Your task to perform on an android device: see creations saved in the google photos Image 0: 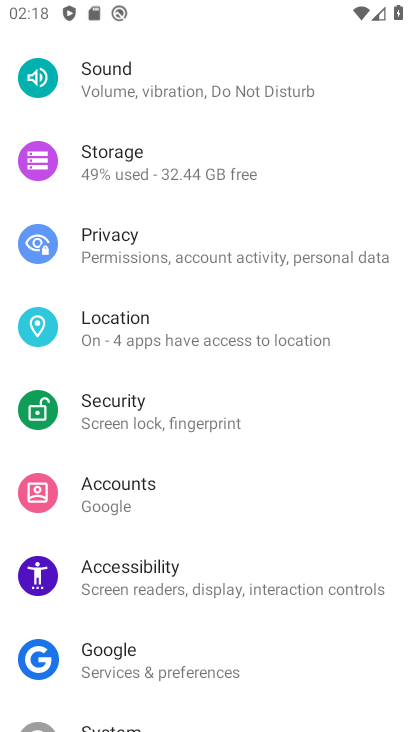
Step 0: press home button
Your task to perform on an android device: see creations saved in the google photos Image 1: 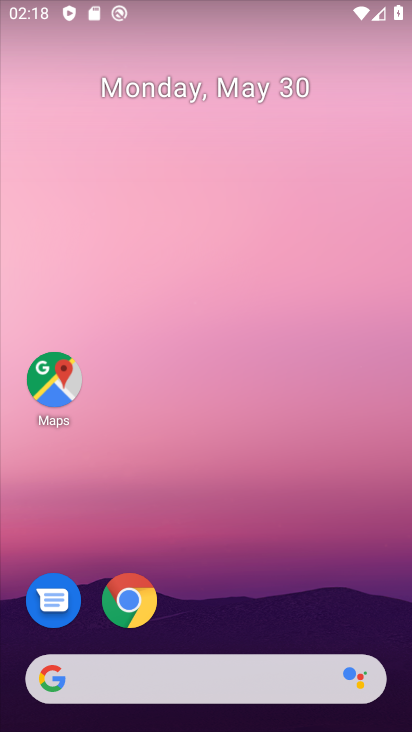
Step 1: drag from (244, 631) to (323, 101)
Your task to perform on an android device: see creations saved in the google photos Image 2: 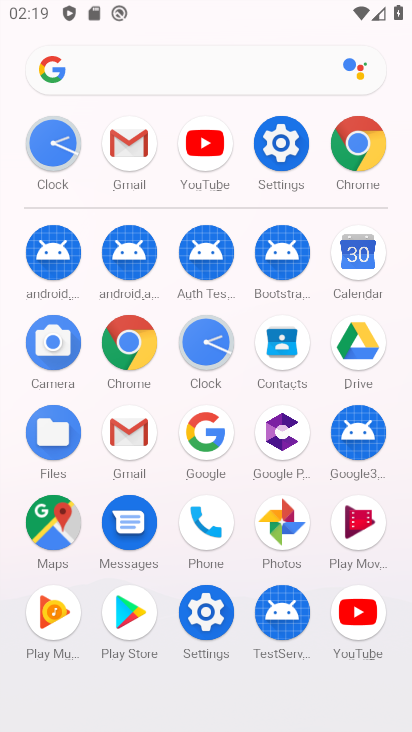
Step 2: click (285, 515)
Your task to perform on an android device: see creations saved in the google photos Image 3: 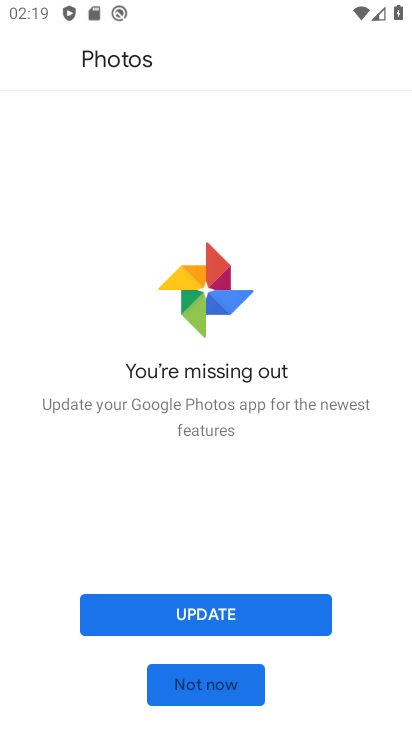
Step 3: click (250, 607)
Your task to perform on an android device: see creations saved in the google photos Image 4: 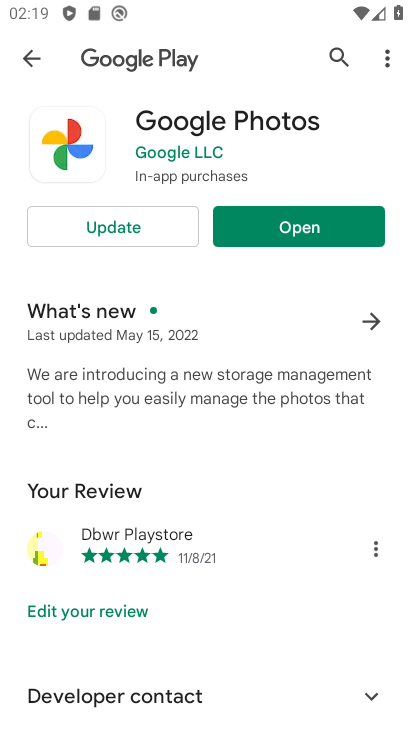
Step 4: click (130, 231)
Your task to perform on an android device: see creations saved in the google photos Image 5: 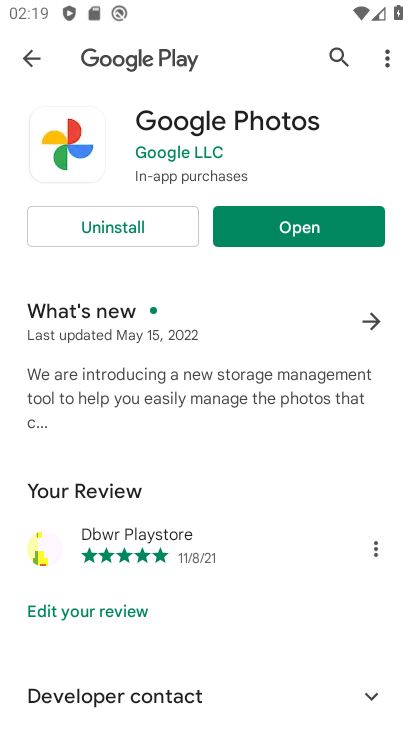
Step 5: click (291, 224)
Your task to perform on an android device: see creations saved in the google photos Image 6: 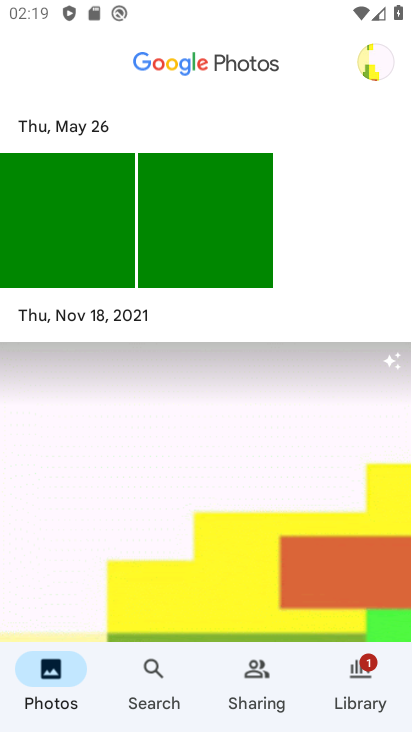
Step 6: click (151, 678)
Your task to perform on an android device: see creations saved in the google photos Image 7: 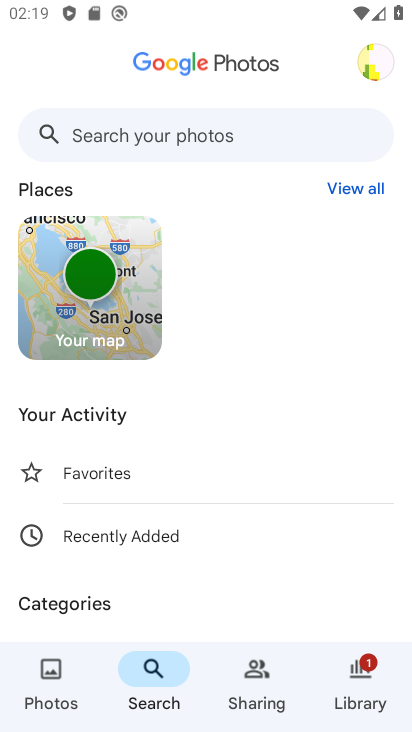
Step 7: drag from (259, 537) to (309, 172)
Your task to perform on an android device: see creations saved in the google photos Image 8: 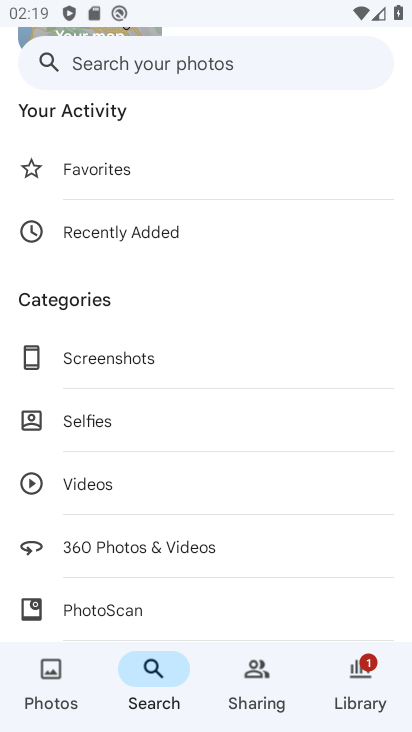
Step 8: drag from (246, 598) to (288, 102)
Your task to perform on an android device: see creations saved in the google photos Image 9: 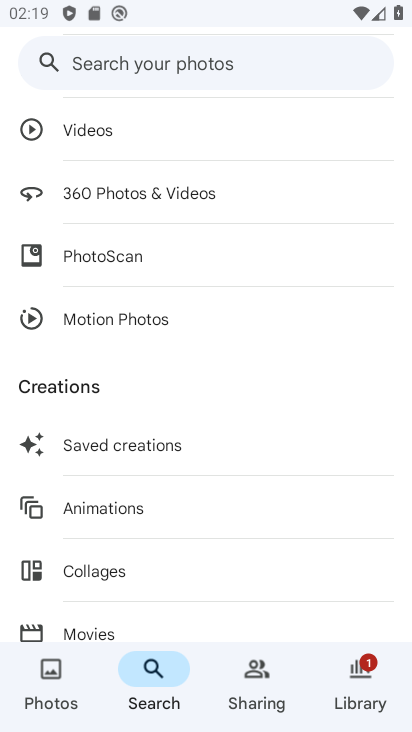
Step 9: click (157, 447)
Your task to perform on an android device: see creations saved in the google photos Image 10: 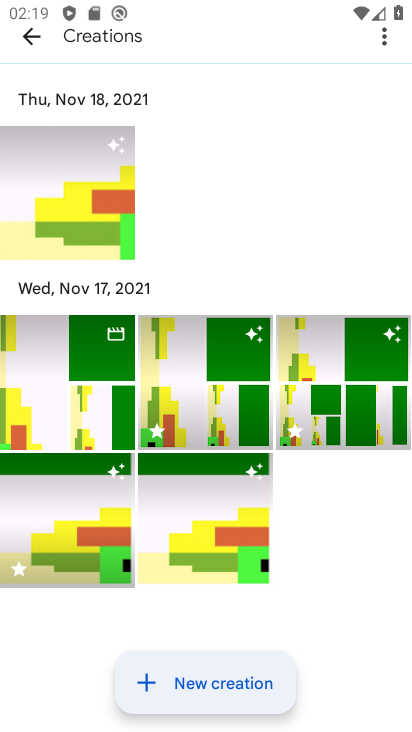
Step 10: task complete